Your task to perform on an android device: Find coffee shops on Maps Image 0: 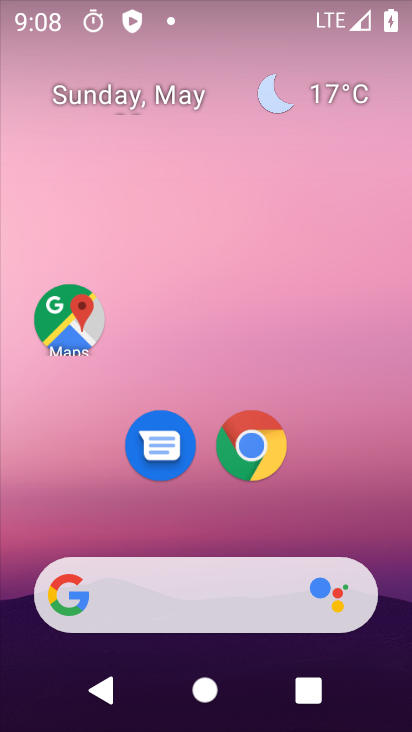
Step 0: drag from (202, 519) to (259, 124)
Your task to perform on an android device: Find coffee shops on Maps Image 1: 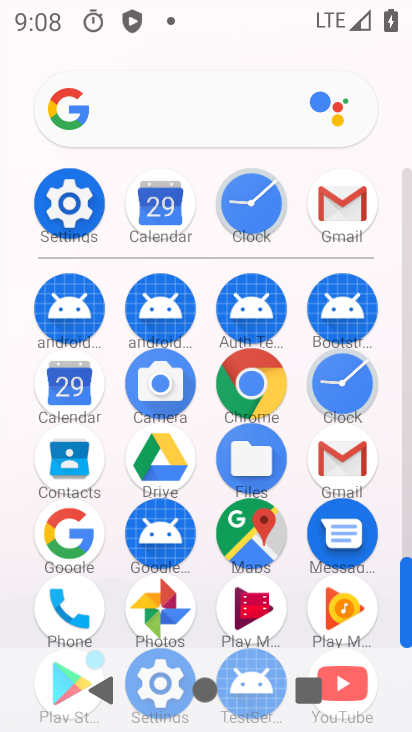
Step 1: click (258, 531)
Your task to perform on an android device: Find coffee shops on Maps Image 2: 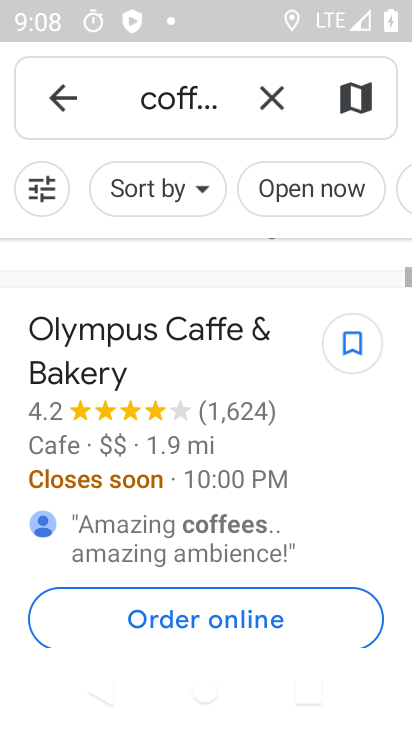
Step 2: click (263, 70)
Your task to perform on an android device: Find coffee shops on Maps Image 3: 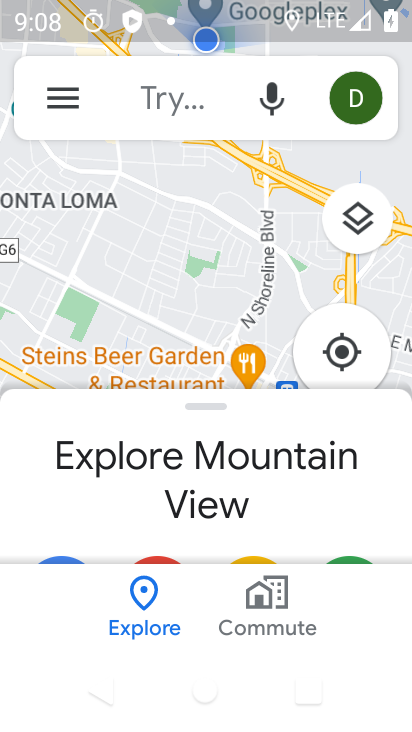
Step 3: click (150, 104)
Your task to perform on an android device: Find coffee shops on Maps Image 4: 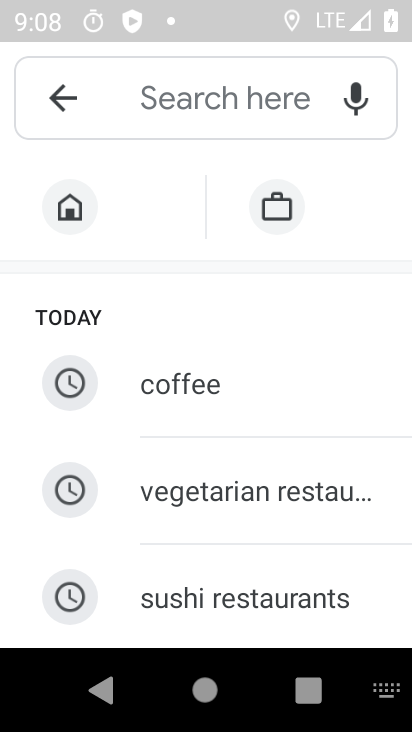
Step 4: click (188, 389)
Your task to perform on an android device: Find coffee shops on Maps Image 5: 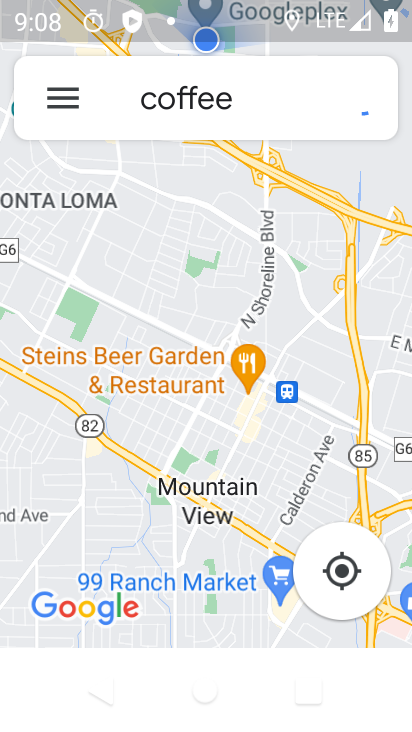
Step 5: task complete